Your task to perform on an android device: open a new tab in the chrome app Image 0: 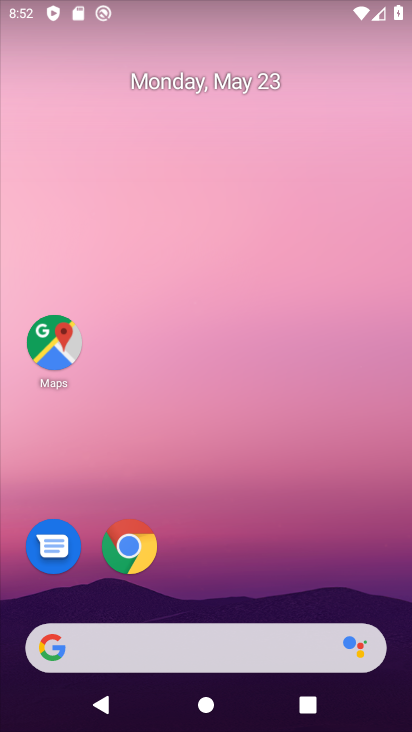
Step 0: drag from (237, 498) to (237, 417)
Your task to perform on an android device: open a new tab in the chrome app Image 1: 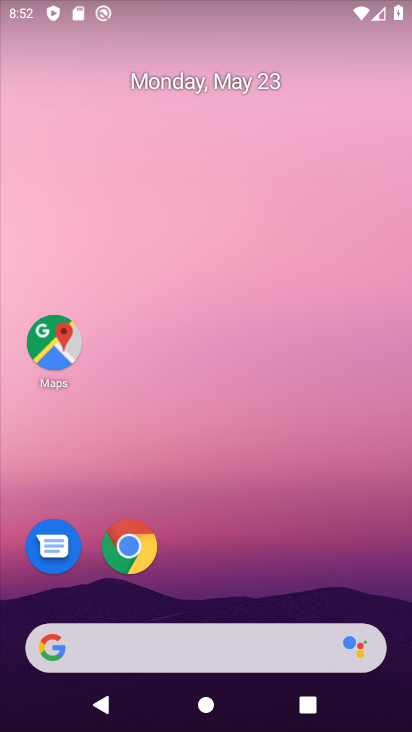
Step 1: click (121, 544)
Your task to perform on an android device: open a new tab in the chrome app Image 2: 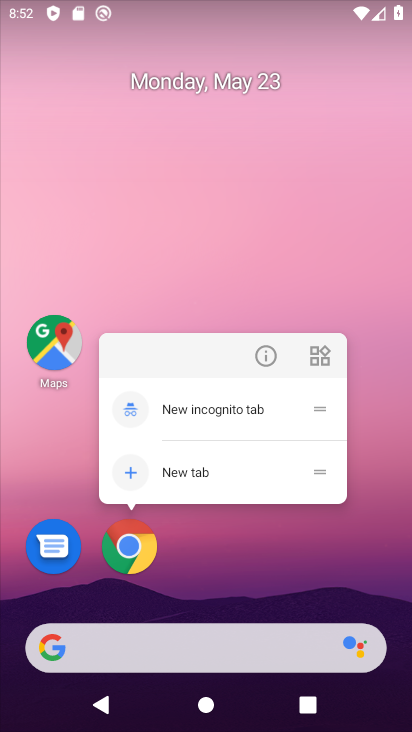
Step 2: click (131, 538)
Your task to perform on an android device: open a new tab in the chrome app Image 3: 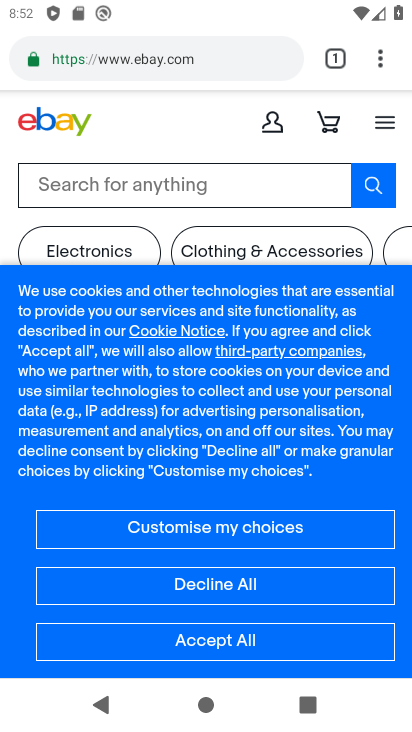
Step 3: task complete